Your task to perform on an android device: toggle notification dots Image 0: 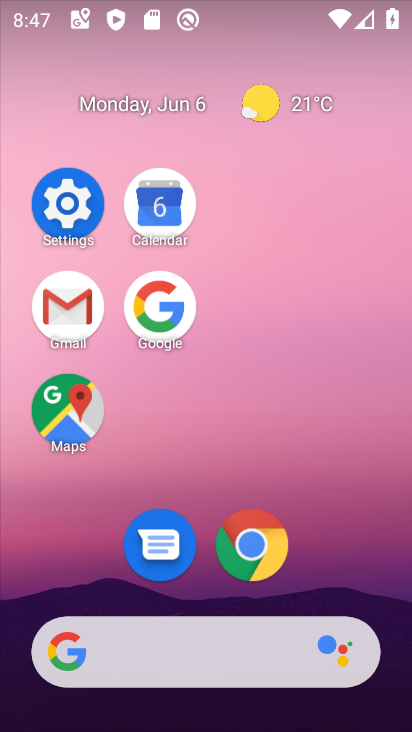
Step 0: click (75, 200)
Your task to perform on an android device: toggle notification dots Image 1: 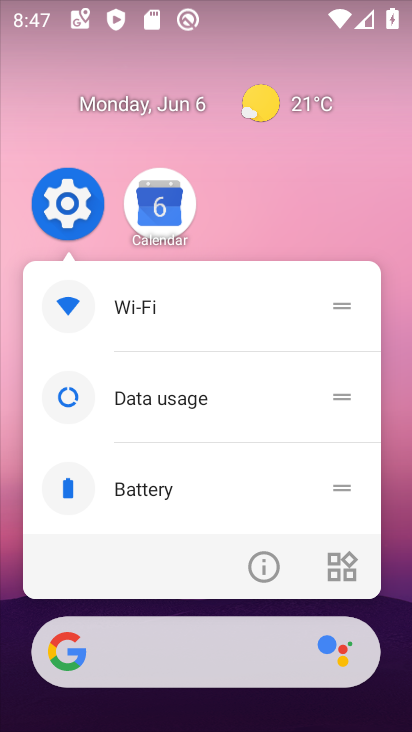
Step 1: click (77, 203)
Your task to perform on an android device: toggle notification dots Image 2: 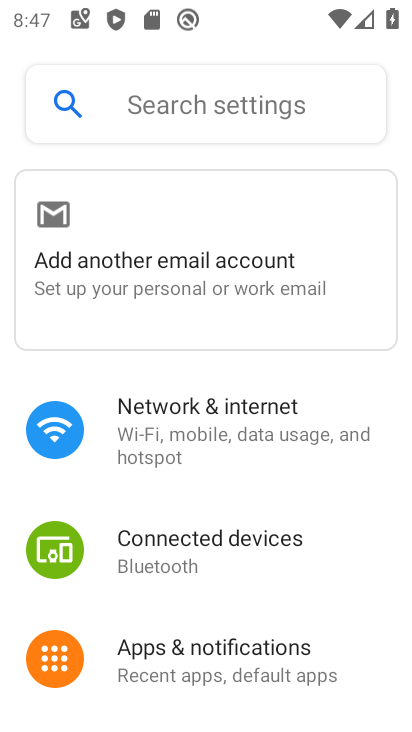
Step 2: click (211, 660)
Your task to perform on an android device: toggle notification dots Image 3: 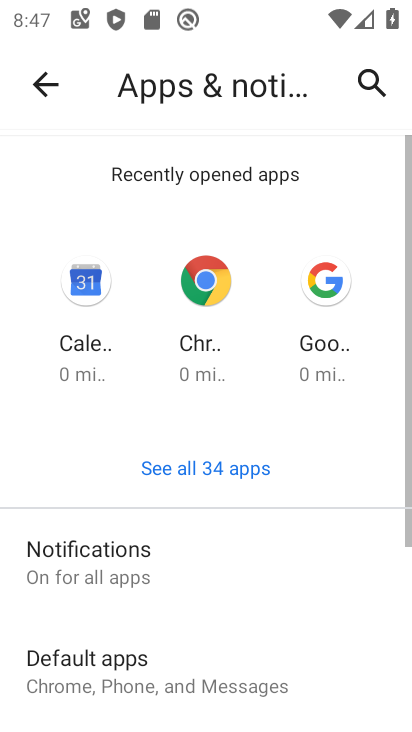
Step 3: drag from (267, 614) to (253, 296)
Your task to perform on an android device: toggle notification dots Image 4: 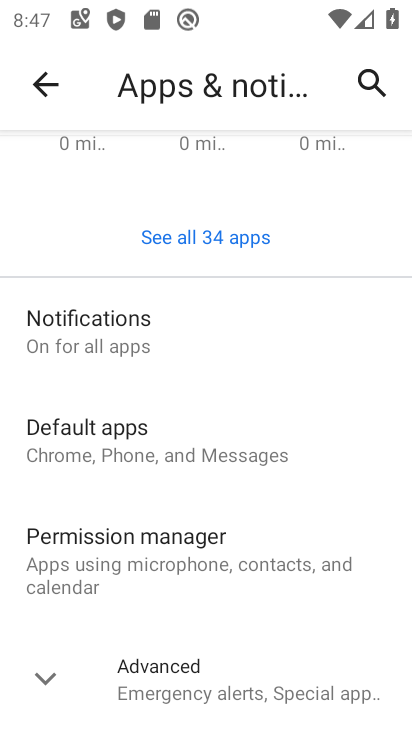
Step 4: click (185, 332)
Your task to perform on an android device: toggle notification dots Image 5: 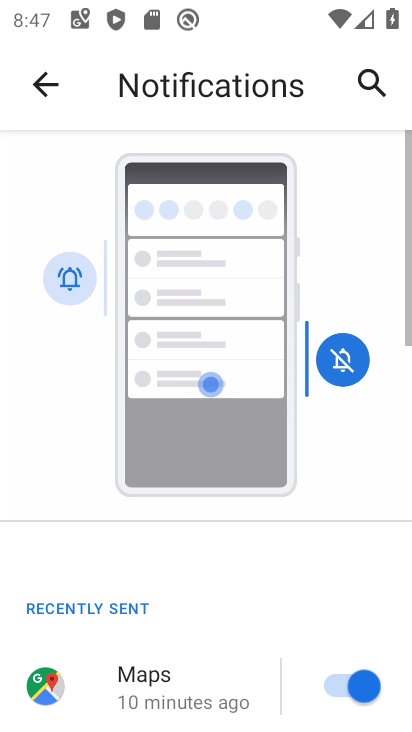
Step 5: drag from (202, 656) to (222, 181)
Your task to perform on an android device: toggle notification dots Image 6: 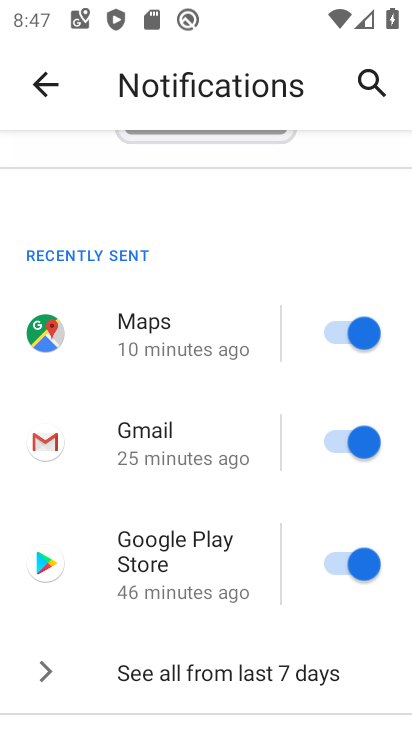
Step 6: drag from (241, 614) to (201, 180)
Your task to perform on an android device: toggle notification dots Image 7: 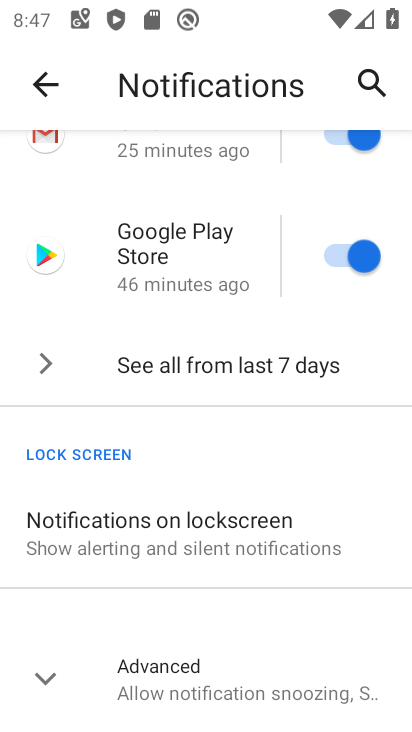
Step 7: click (169, 665)
Your task to perform on an android device: toggle notification dots Image 8: 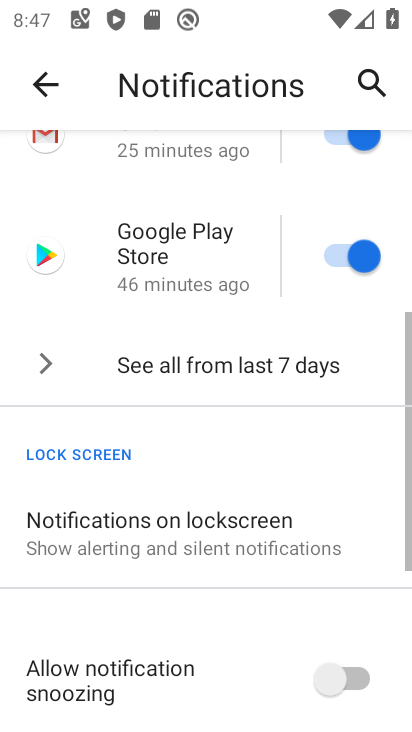
Step 8: drag from (170, 665) to (223, 229)
Your task to perform on an android device: toggle notification dots Image 9: 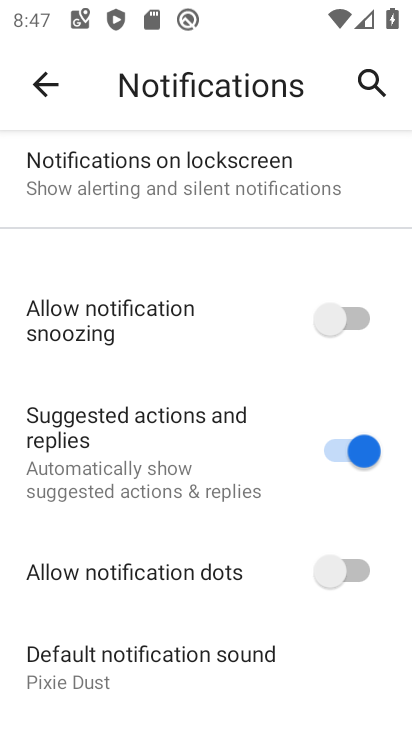
Step 9: click (333, 561)
Your task to perform on an android device: toggle notification dots Image 10: 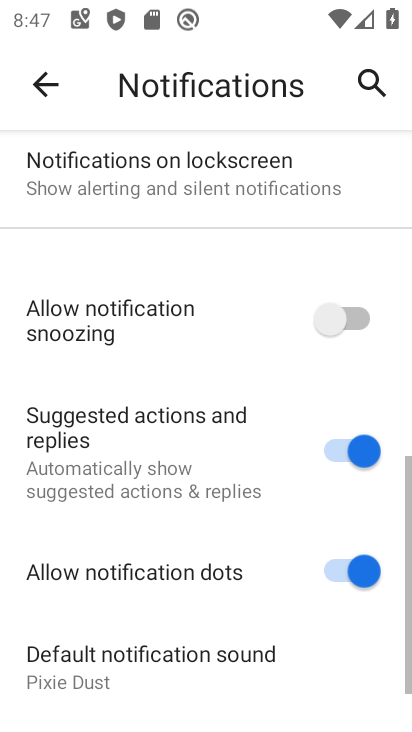
Step 10: task complete